Your task to perform on an android device: What is the recent news? Image 0: 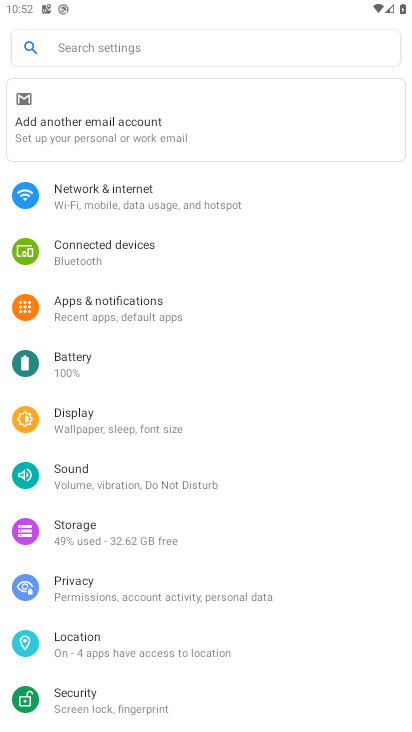
Step 0: press home button
Your task to perform on an android device: What is the recent news? Image 1: 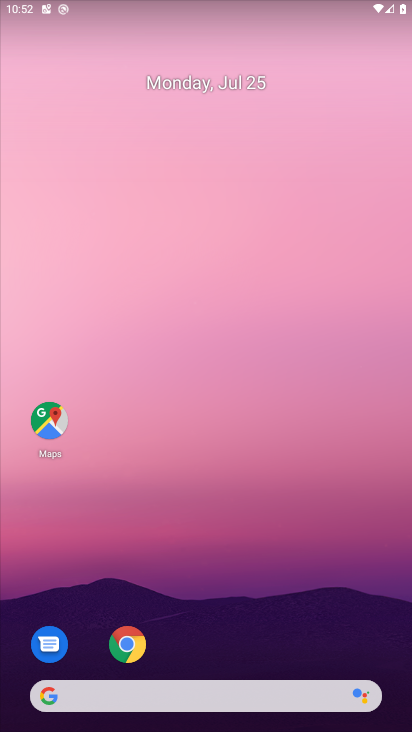
Step 1: drag from (257, 593) to (356, 101)
Your task to perform on an android device: What is the recent news? Image 2: 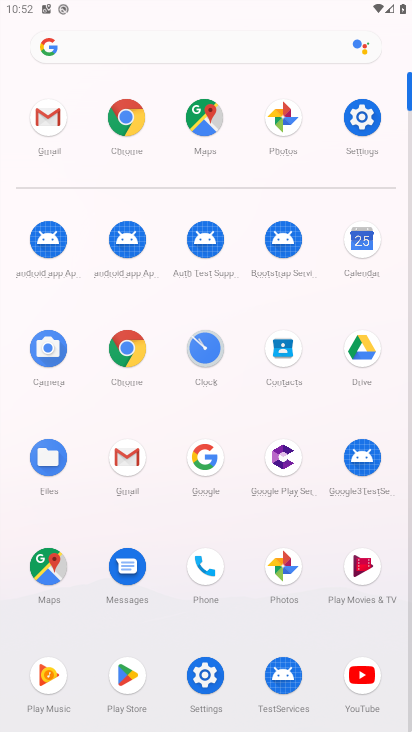
Step 2: click (133, 339)
Your task to perform on an android device: What is the recent news? Image 3: 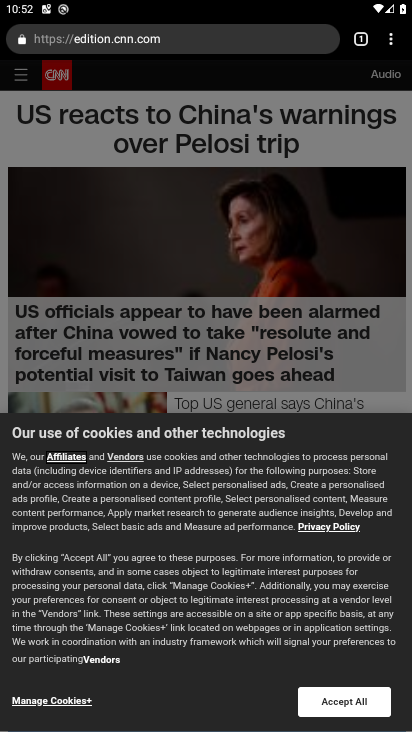
Step 3: click (204, 41)
Your task to perform on an android device: What is the recent news? Image 4: 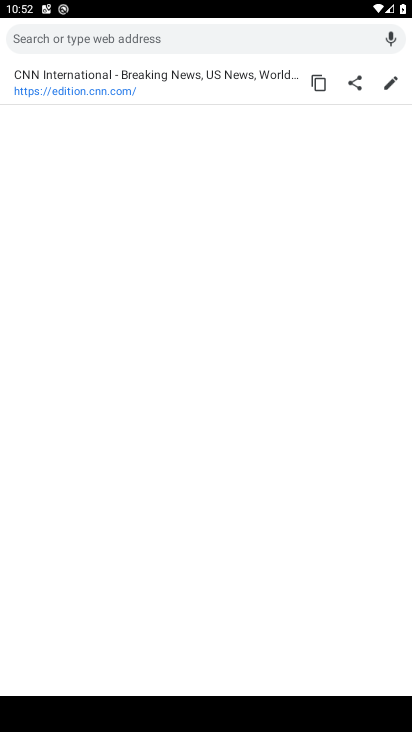
Step 4: type "What is the recent news?"
Your task to perform on an android device: What is the recent news? Image 5: 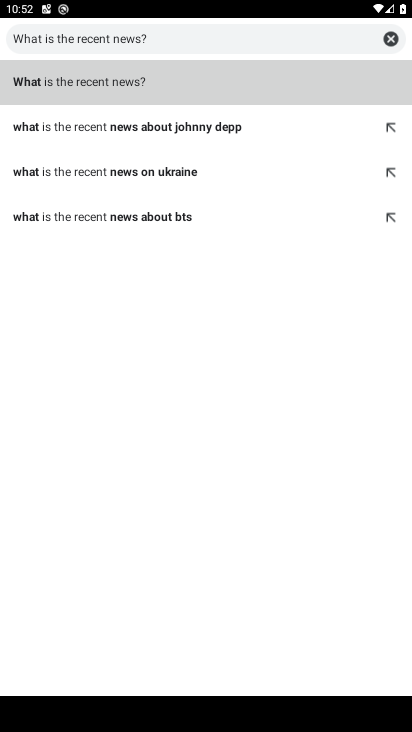
Step 5: click (86, 85)
Your task to perform on an android device: What is the recent news? Image 6: 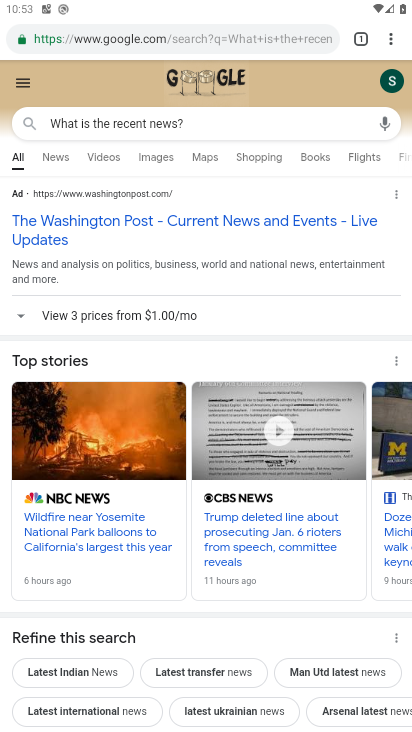
Step 6: task complete